Your task to perform on an android device: open app "Grab" Image 0: 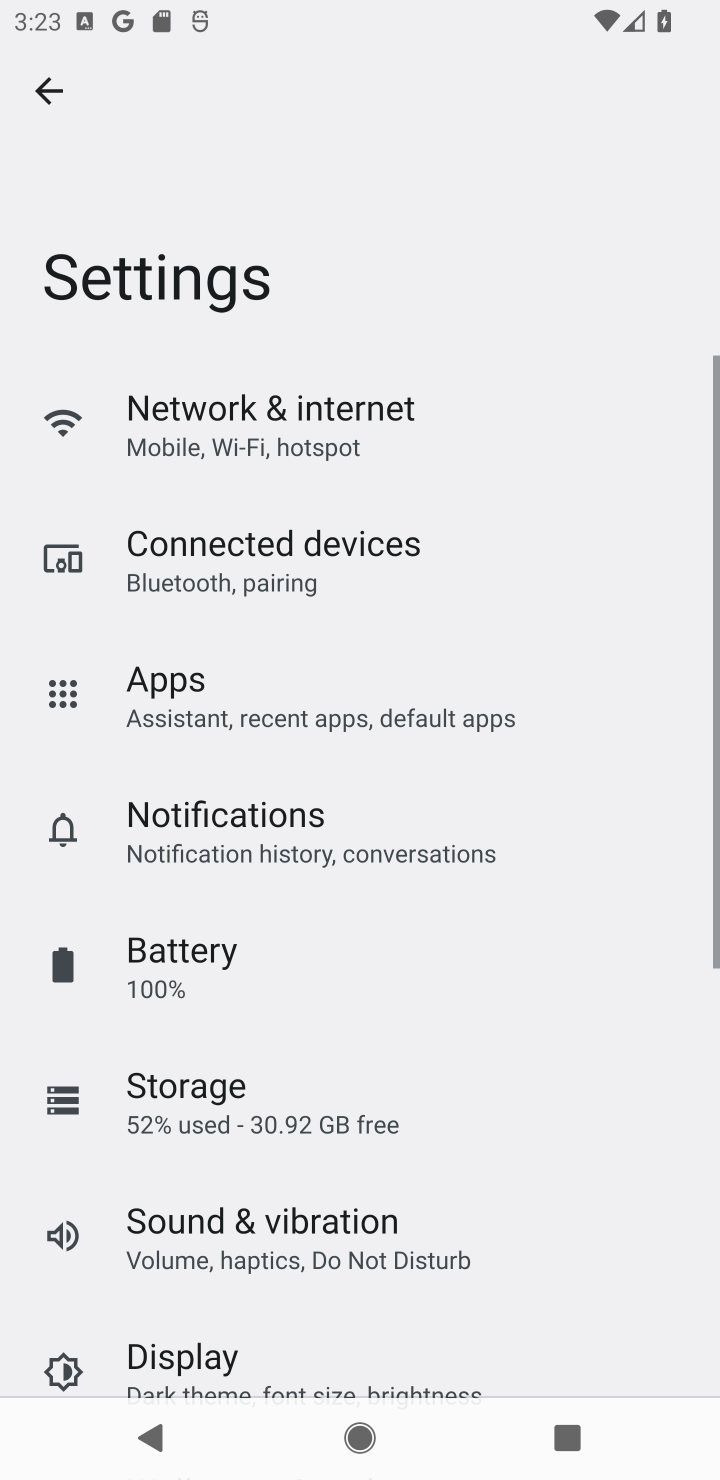
Step 0: press home button
Your task to perform on an android device: open app "Grab" Image 1: 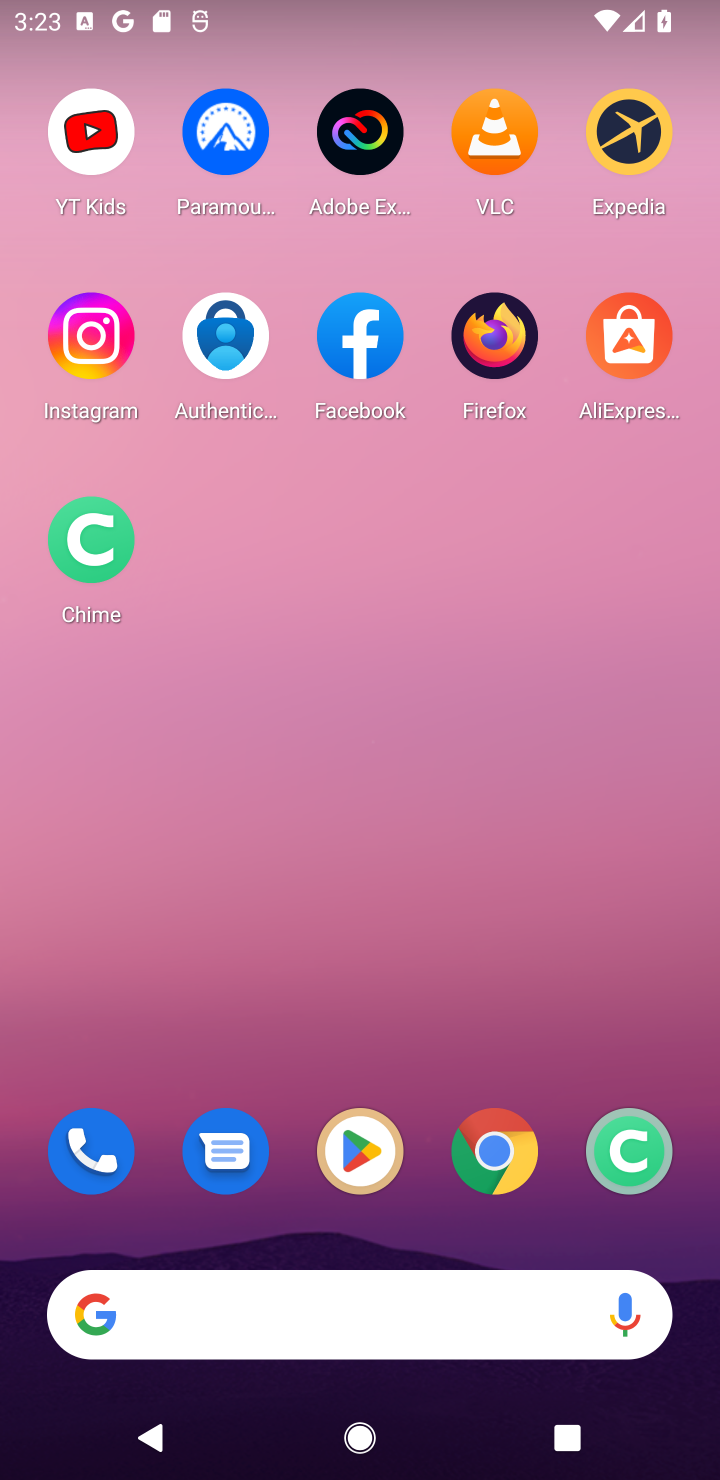
Step 1: press home button
Your task to perform on an android device: open app "Grab" Image 2: 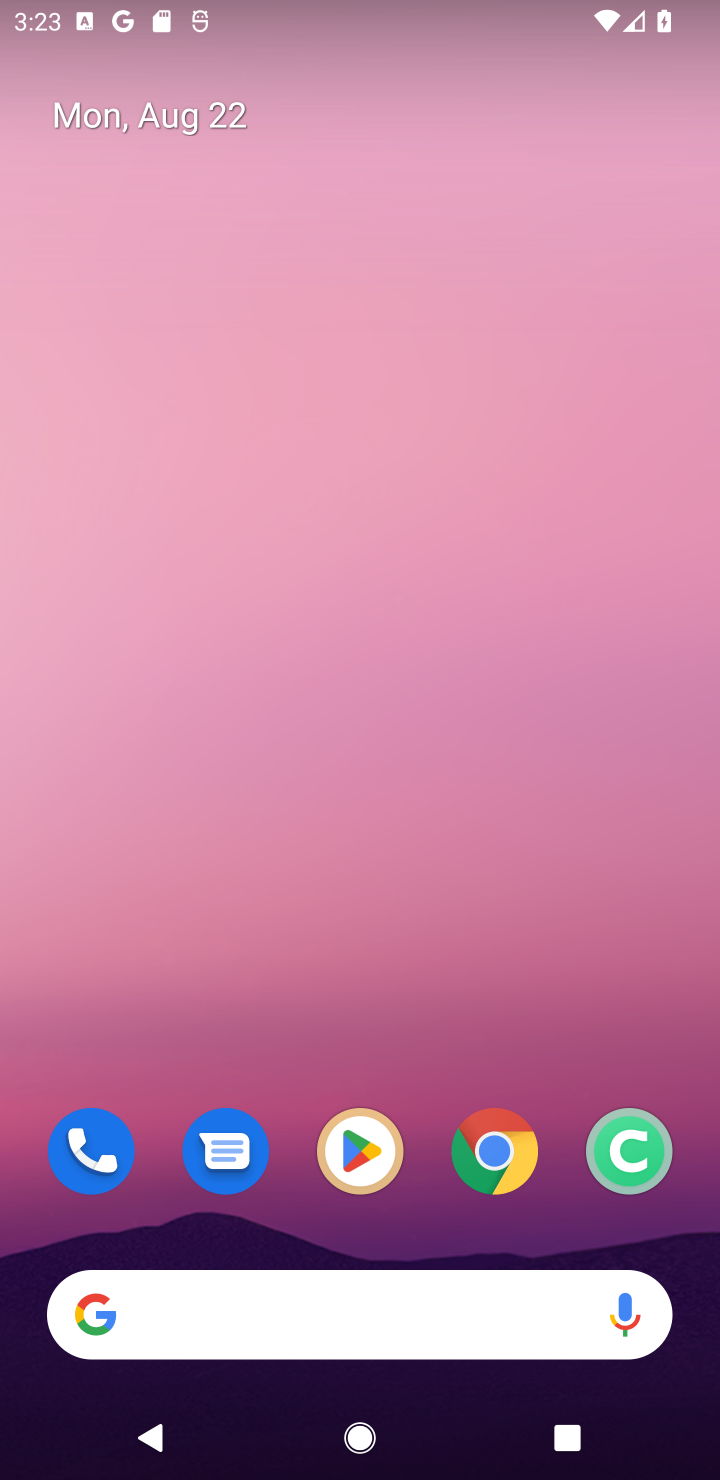
Step 2: click (338, 1141)
Your task to perform on an android device: open app "Grab" Image 3: 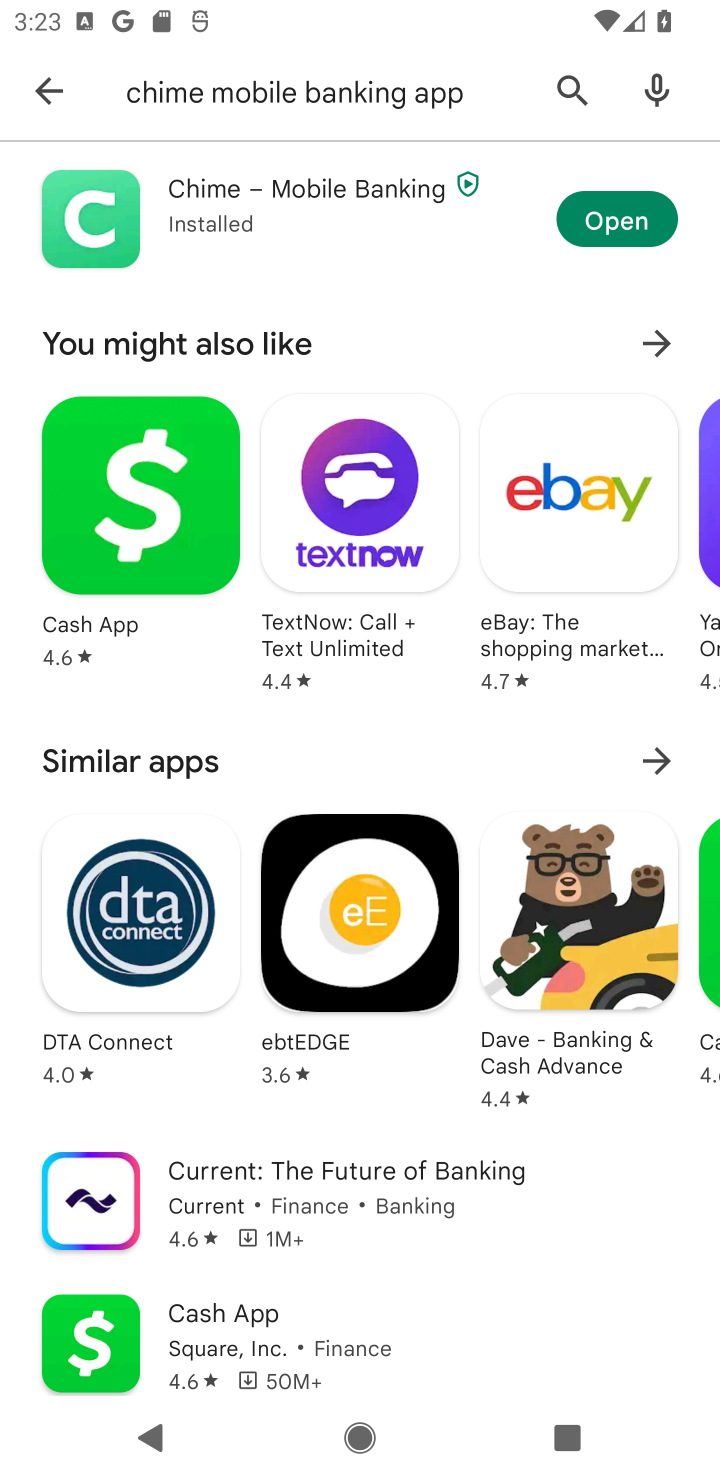
Step 3: click (571, 82)
Your task to perform on an android device: open app "Grab" Image 4: 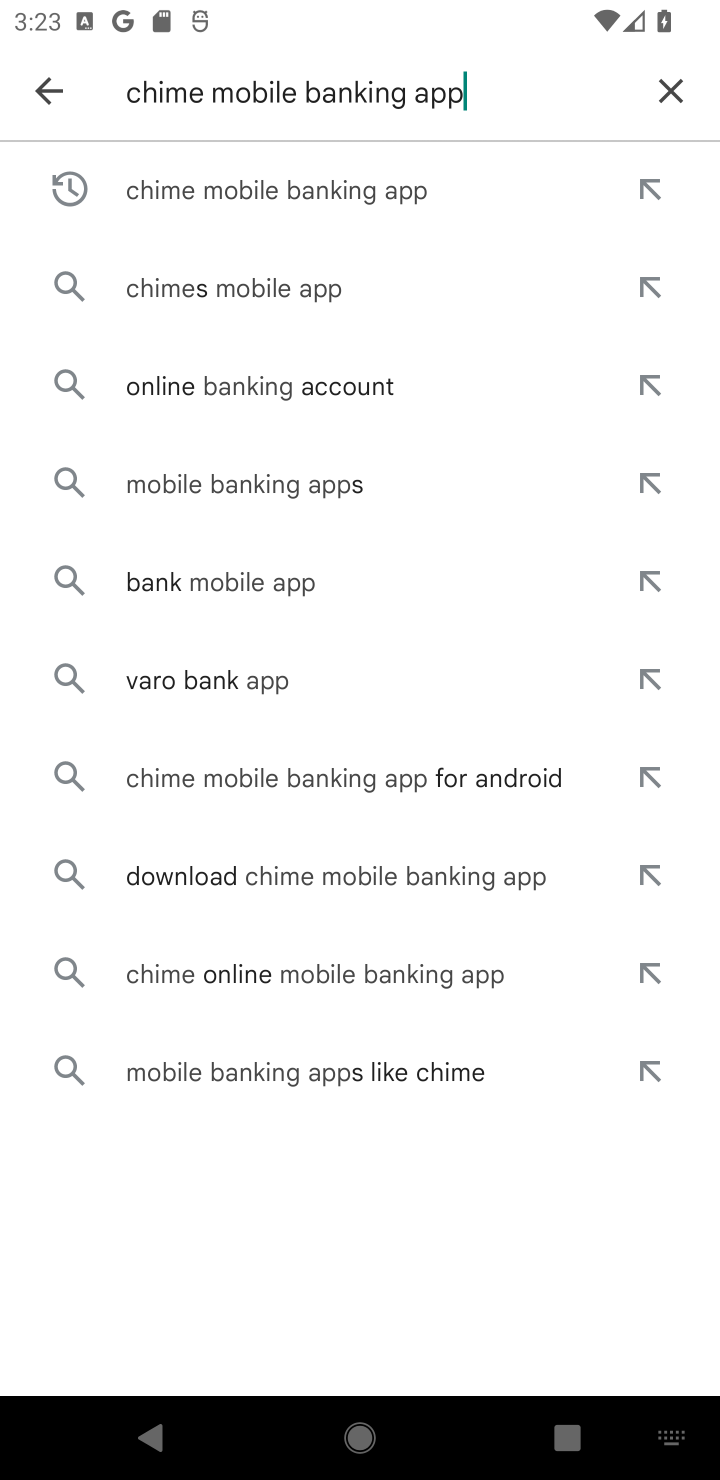
Step 4: click (662, 83)
Your task to perform on an android device: open app "Grab" Image 5: 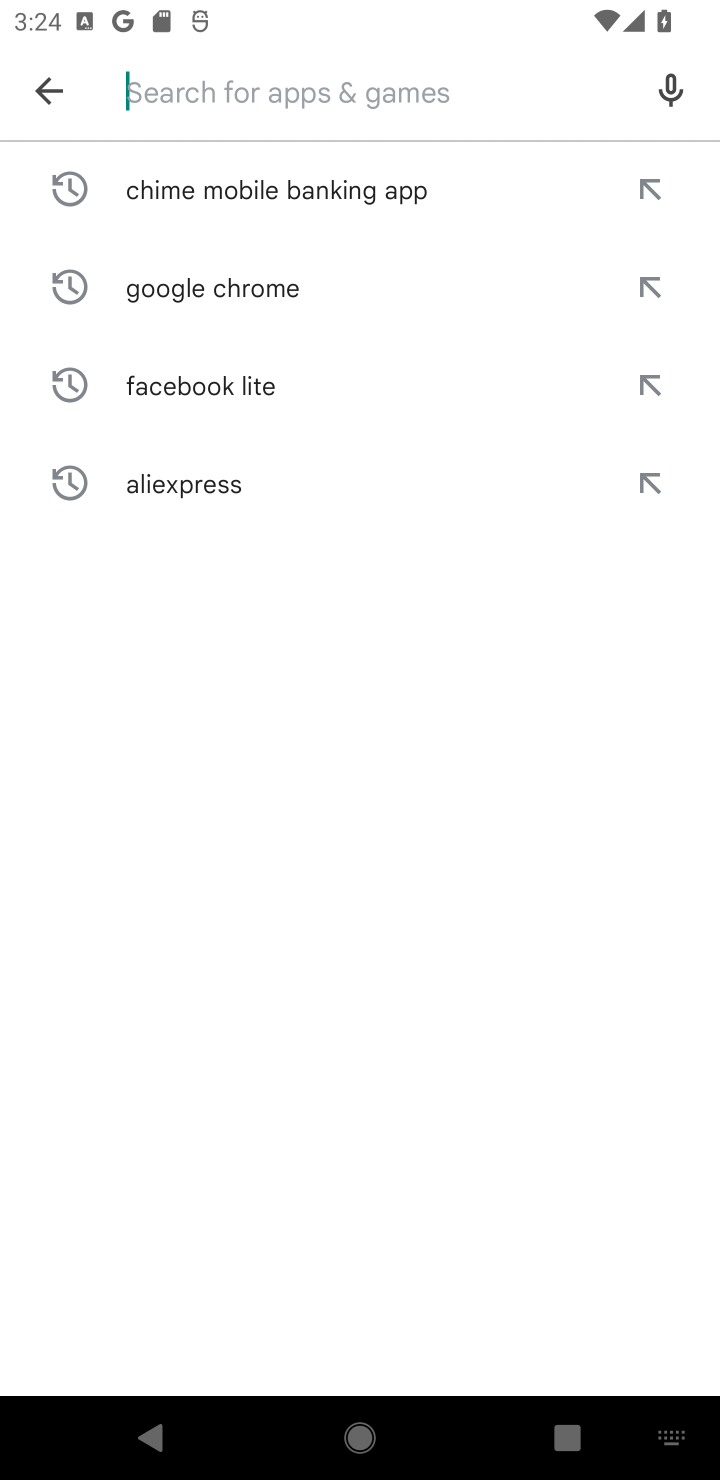
Step 5: type "Grab"
Your task to perform on an android device: open app "Grab" Image 6: 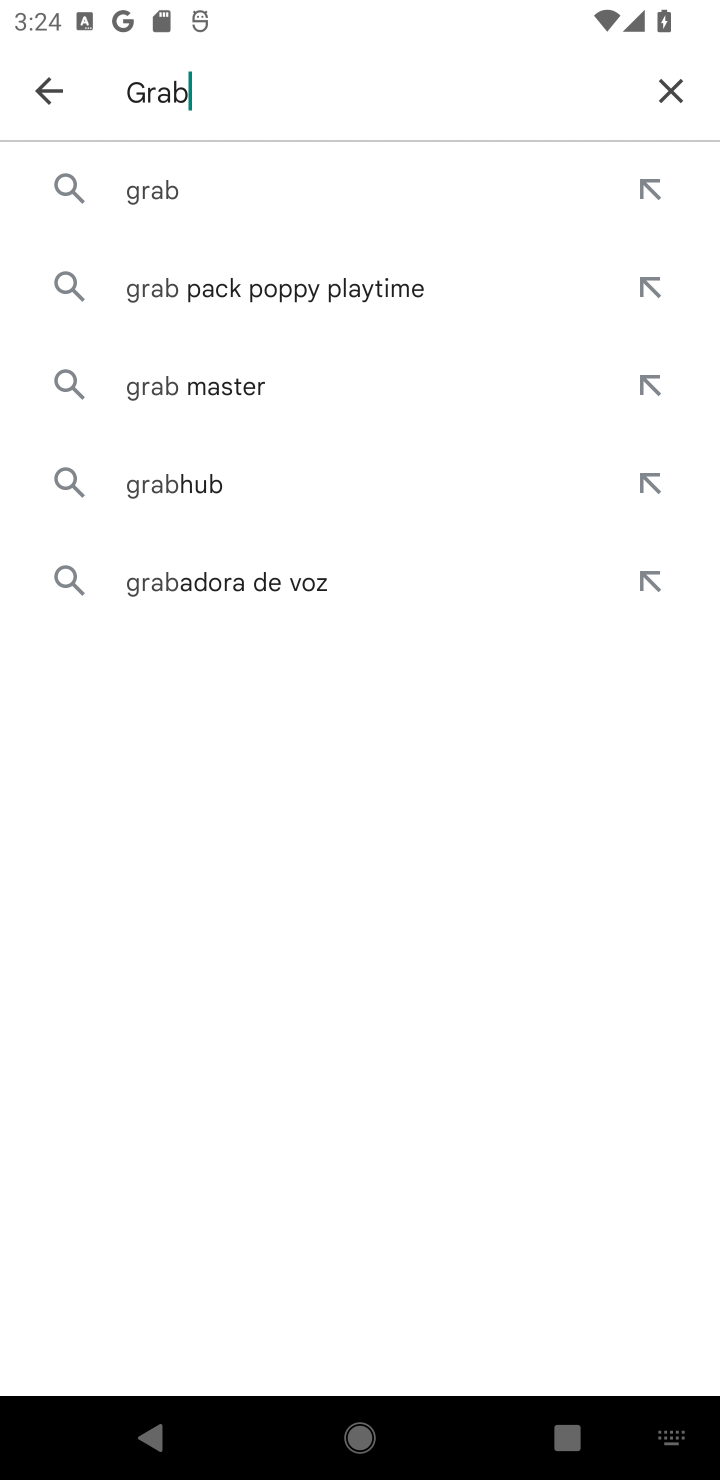
Step 6: click (151, 183)
Your task to perform on an android device: open app "Grab" Image 7: 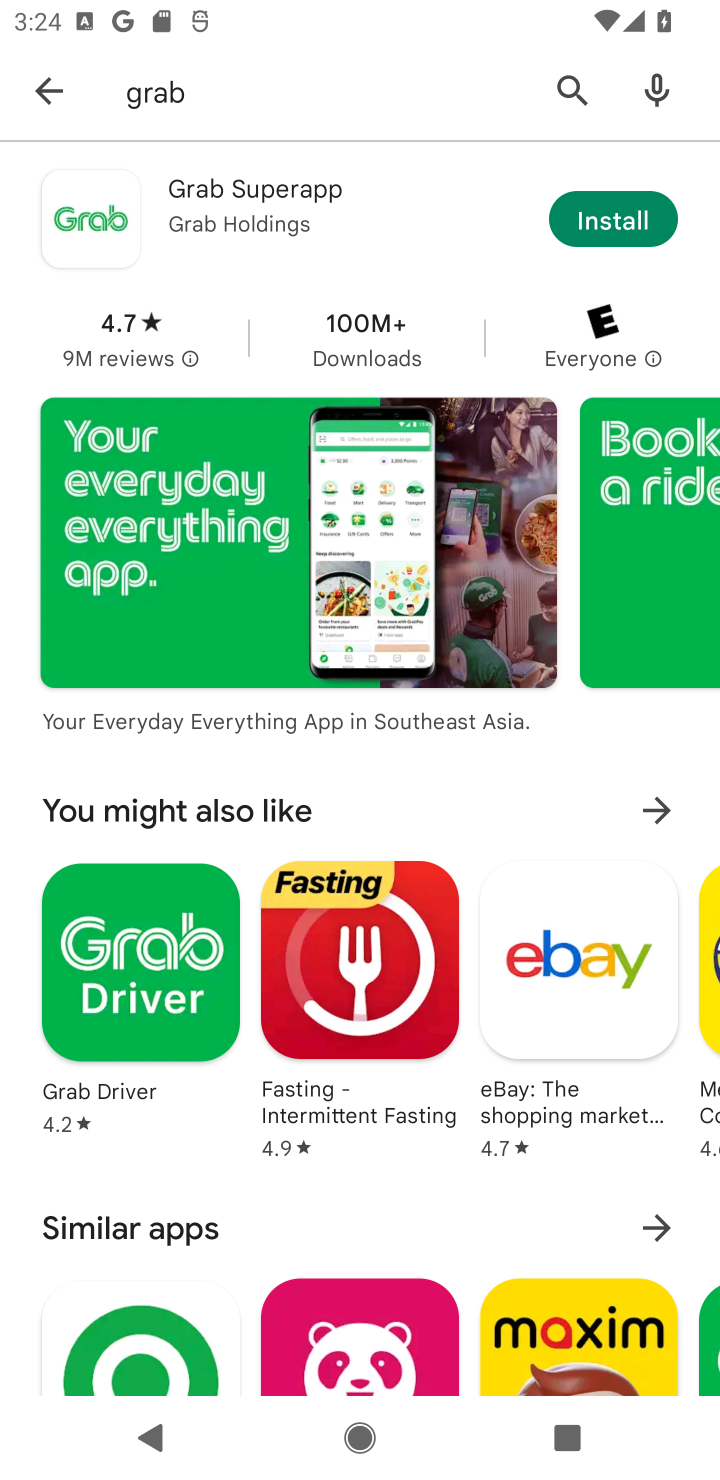
Step 7: task complete